Your task to perform on an android device: Open location settings Image 0: 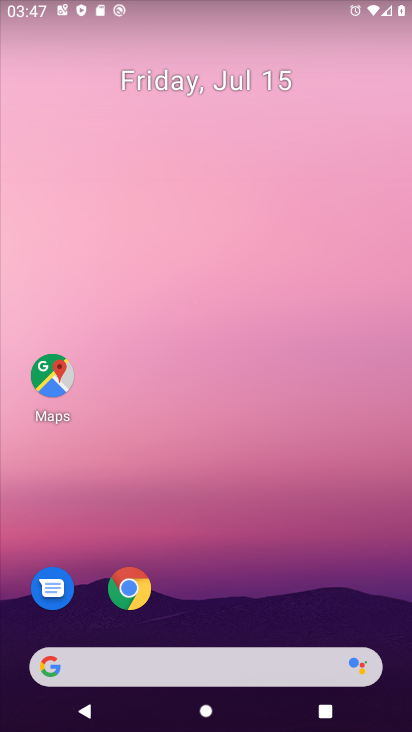
Step 0: drag from (200, 662) to (202, 209)
Your task to perform on an android device: Open location settings Image 1: 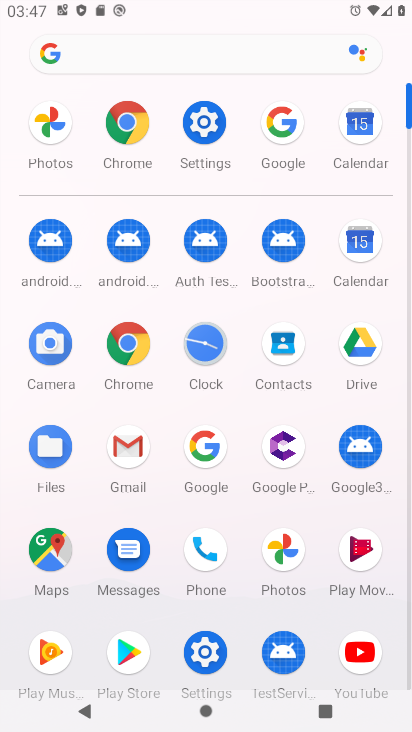
Step 1: click (203, 123)
Your task to perform on an android device: Open location settings Image 2: 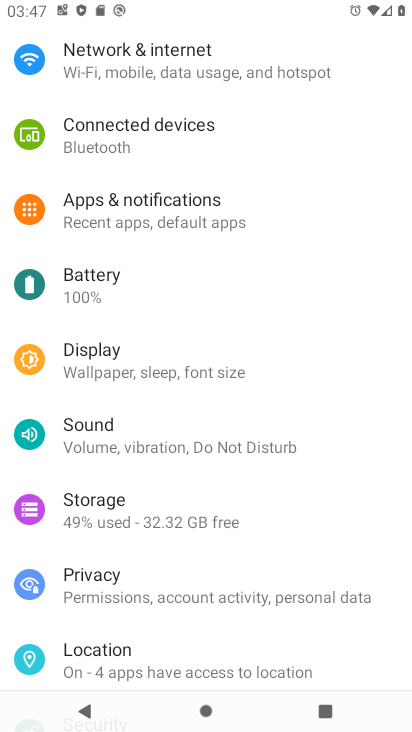
Step 2: drag from (164, 554) to (152, 320)
Your task to perform on an android device: Open location settings Image 3: 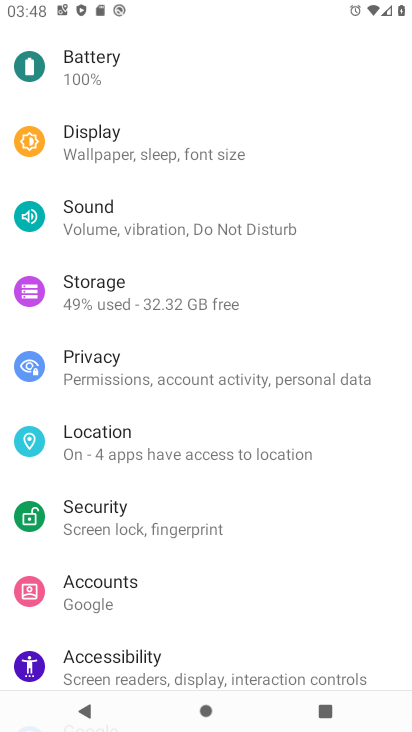
Step 3: click (138, 454)
Your task to perform on an android device: Open location settings Image 4: 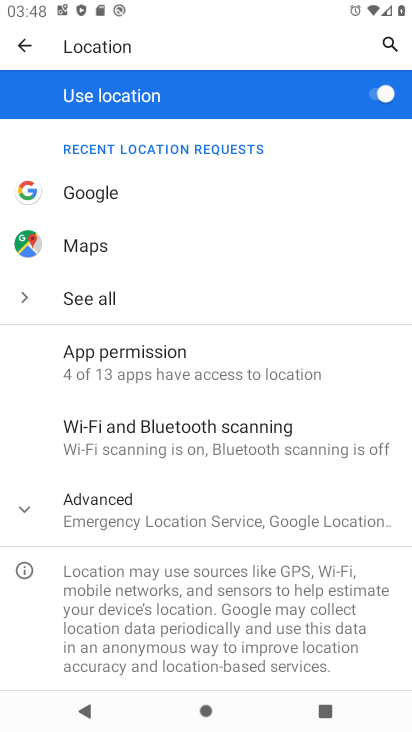
Step 4: task complete